Your task to perform on an android device: toggle improve location accuracy Image 0: 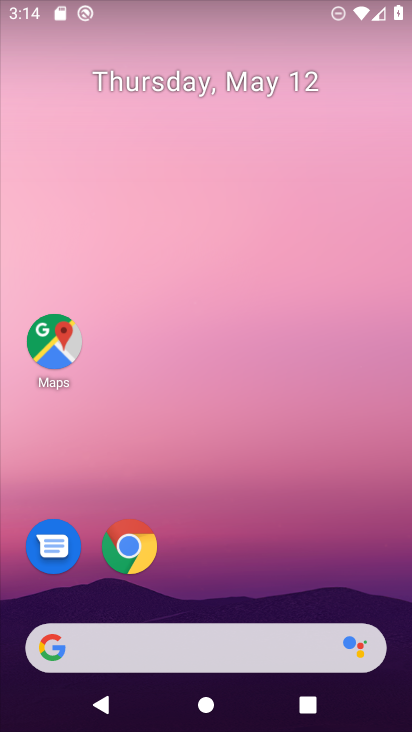
Step 0: drag from (276, 569) to (302, 264)
Your task to perform on an android device: toggle improve location accuracy Image 1: 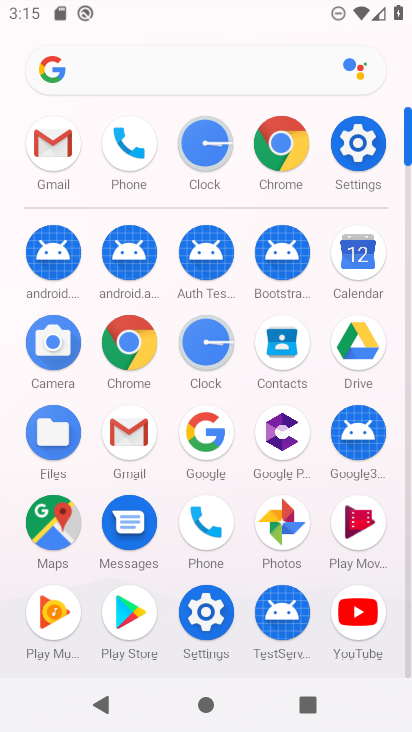
Step 1: click (350, 136)
Your task to perform on an android device: toggle improve location accuracy Image 2: 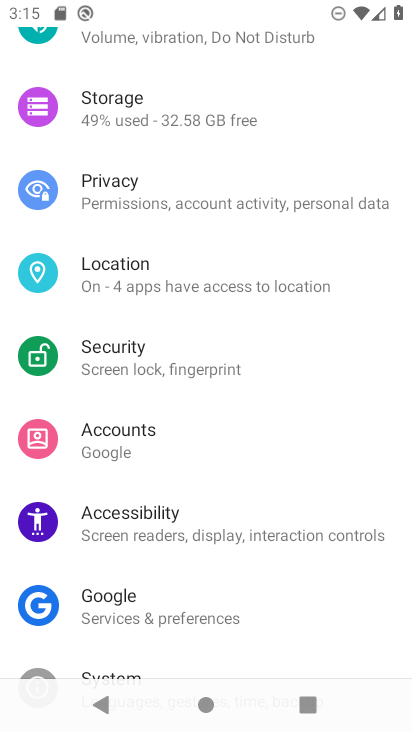
Step 2: click (147, 275)
Your task to perform on an android device: toggle improve location accuracy Image 3: 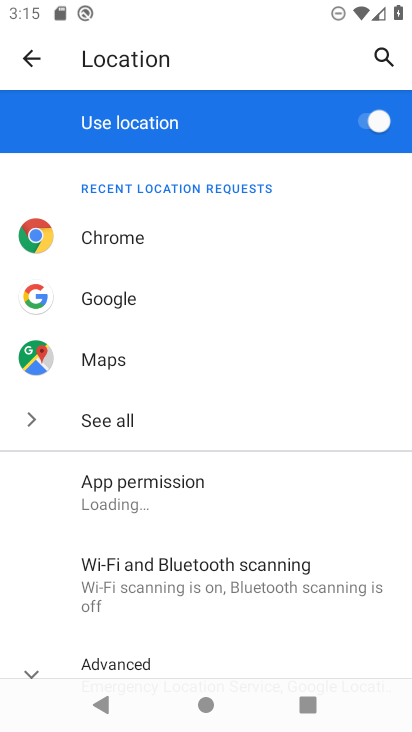
Step 3: drag from (269, 517) to (314, 271)
Your task to perform on an android device: toggle improve location accuracy Image 4: 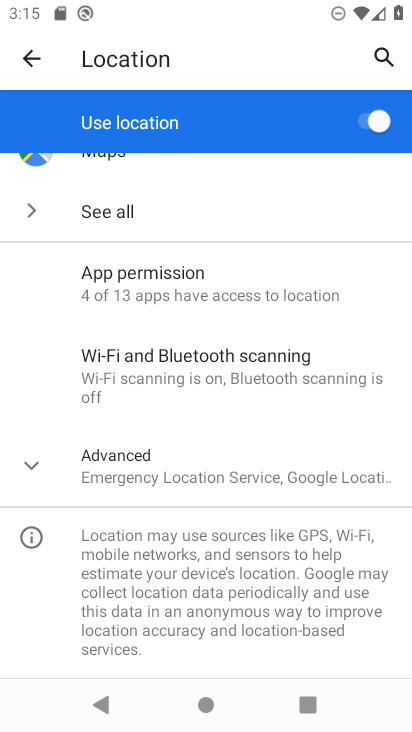
Step 4: click (202, 471)
Your task to perform on an android device: toggle improve location accuracy Image 5: 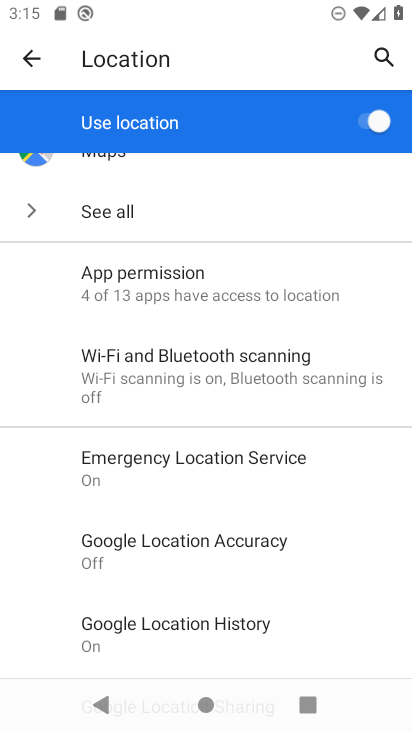
Step 5: click (224, 550)
Your task to perform on an android device: toggle improve location accuracy Image 6: 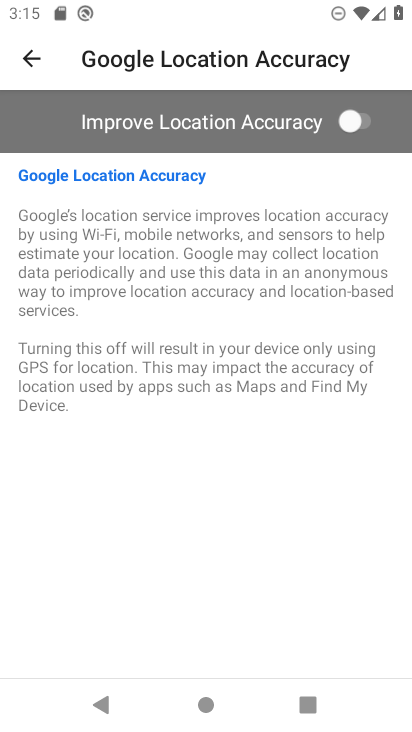
Step 6: click (345, 126)
Your task to perform on an android device: toggle improve location accuracy Image 7: 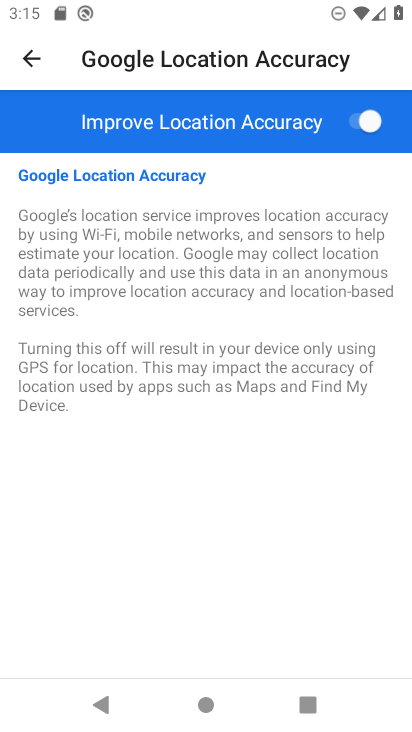
Step 7: task complete